Your task to perform on an android device: Go to network settings Image 0: 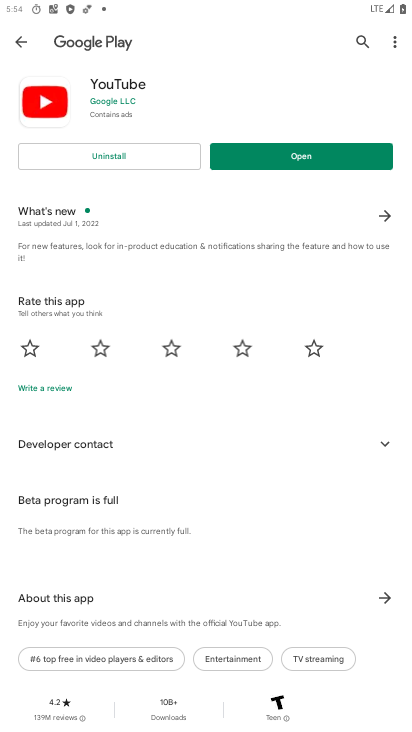
Step 0: press home button
Your task to perform on an android device: Go to network settings Image 1: 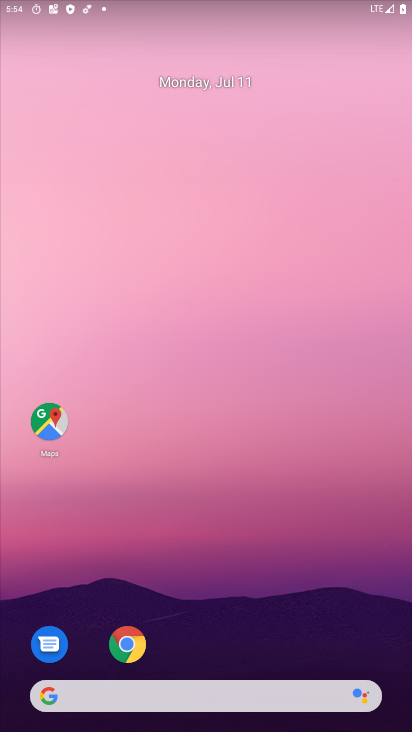
Step 1: drag from (255, 676) to (285, 31)
Your task to perform on an android device: Go to network settings Image 2: 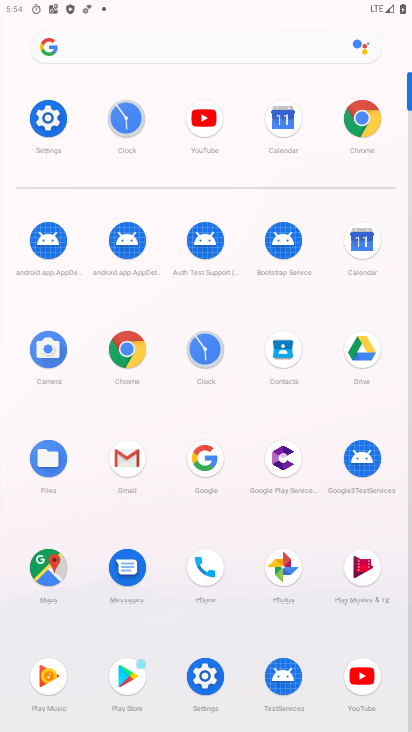
Step 2: click (49, 115)
Your task to perform on an android device: Go to network settings Image 3: 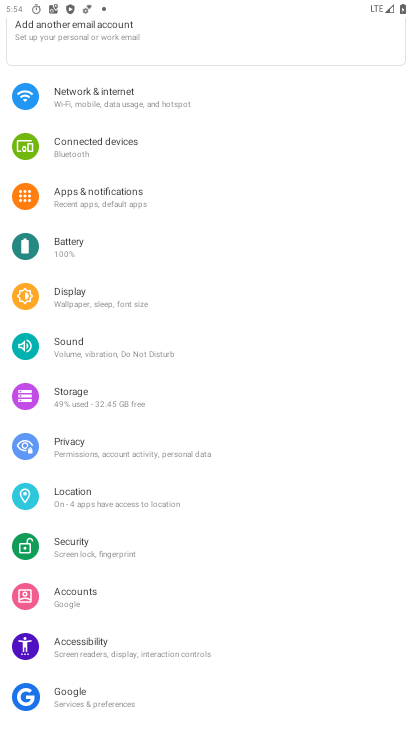
Step 3: click (145, 101)
Your task to perform on an android device: Go to network settings Image 4: 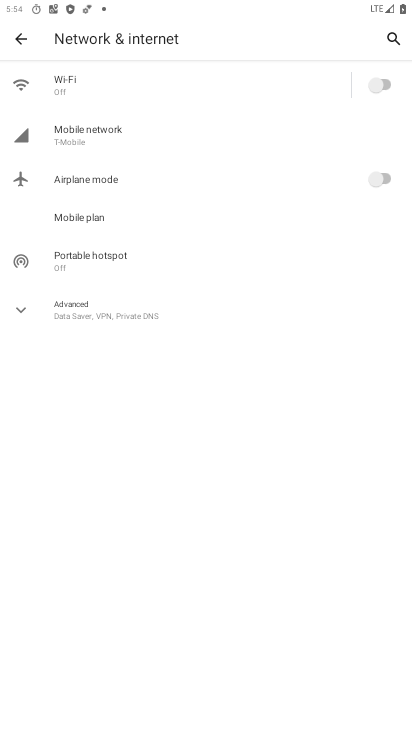
Step 4: task complete